Your task to perform on an android device: turn smart compose on in the gmail app Image 0: 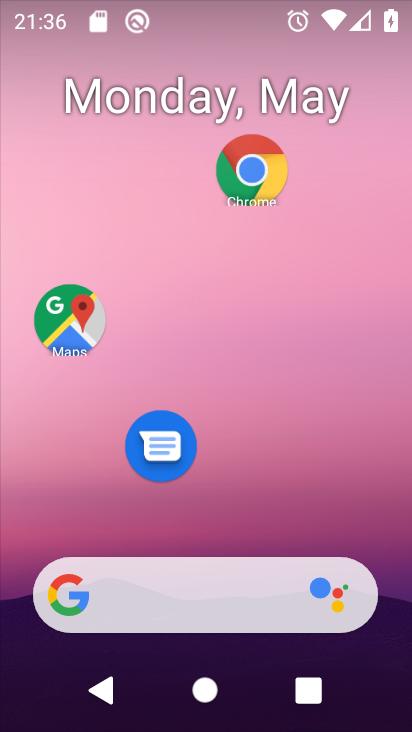
Step 0: drag from (230, 504) to (241, 66)
Your task to perform on an android device: turn smart compose on in the gmail app Image 1: 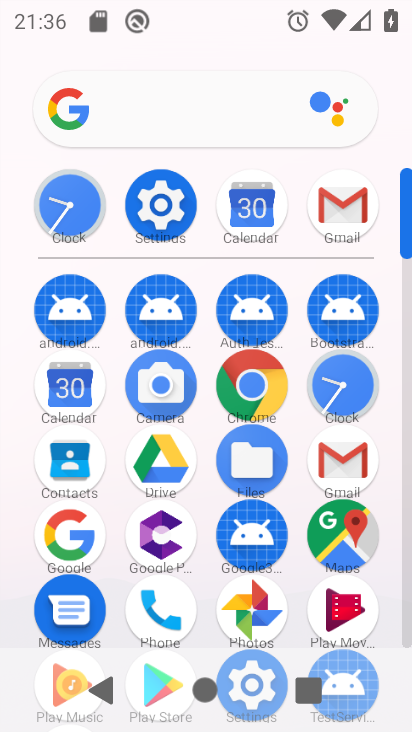
Step 1: click (333, 202)
Your task to perform on an android device: turn smart compose on in the gmail app Image 2: 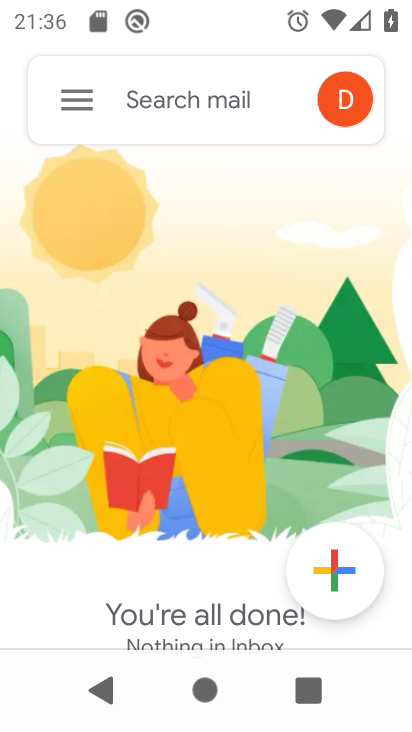
Step 2: click (86, 101)
Your task to perform on an android device: turn smart compose on in the gmail app Image 3: 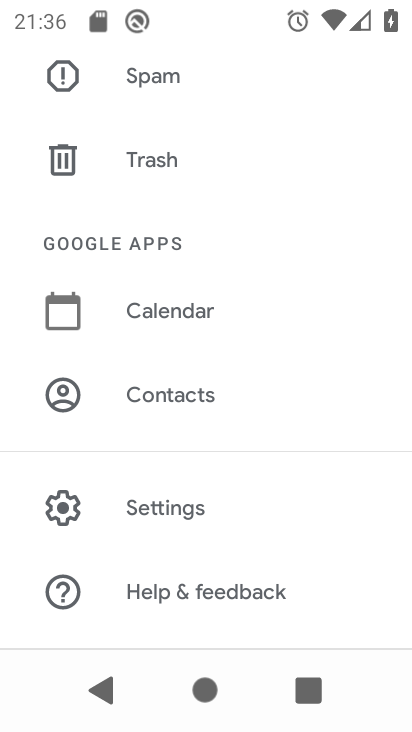
Step 3: click (189, 488)
Your task to perform on an android device: turn smart compose on in the gmail app Image 4: 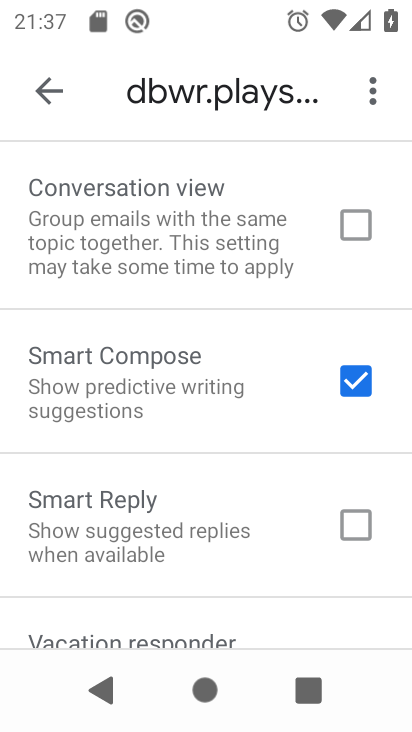
Step 4: task complete